Your task to perform on an android device: Search for the new Nintendo switch on Walmart. Image 0: 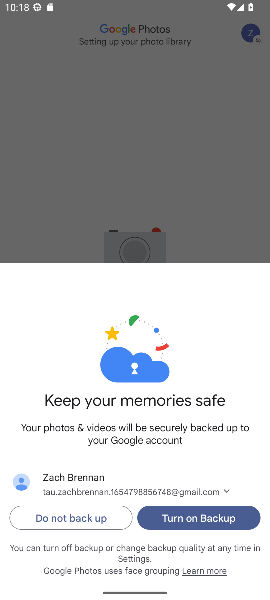
Step 0: press home button
Your task to perform on an android device: Search for the new Nintendo switch on Walmart. Image 1: 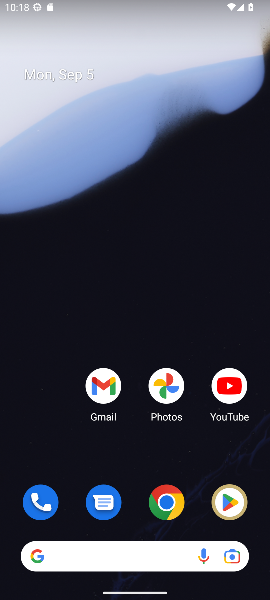
Step 1: click (264, 510)
Your task to perform on an android device: Search for the new Nintendo switch on Walmart. Image 2: 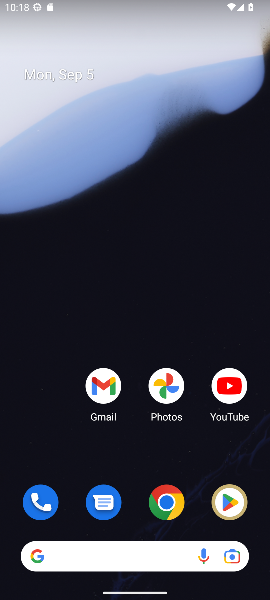
Step 2: drag from (260, 510) to (201, 34)
Your task to perform on an android device: Search for the new Nintendo switch on Walmart. Image 3: 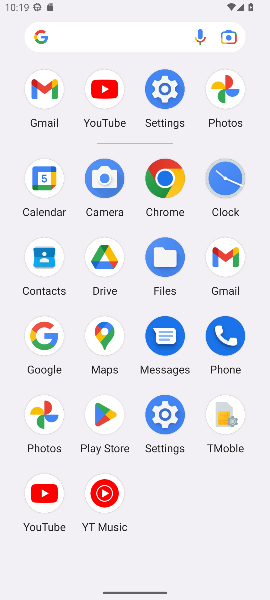
Step 3: click (46, 343)
Your task to perform on an android device: Search for the new Nintendo switch on Walmart. Image 4: 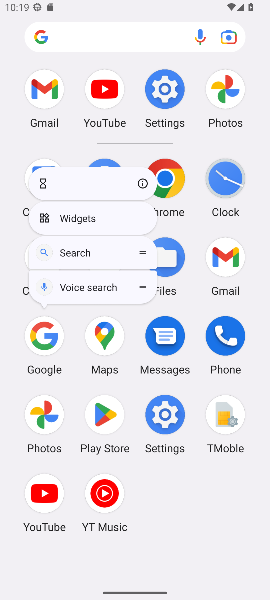
Step 4: click (46, 343)
Your task to perform on an android device: Search for the new Nintendo switch on Walmart. Image 5: 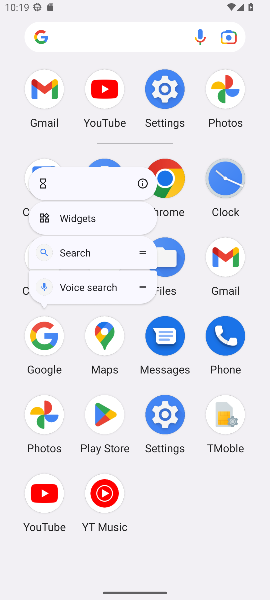
Step 5: click (46, 343)
Your task to perform on an android device: Search for the new Nintendo switch on Walmart. Image 6: 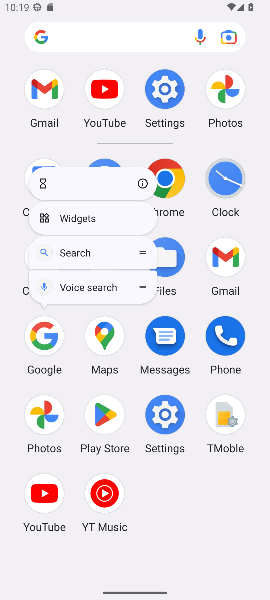
Step 6: click (46, 343)
Your task to perform on an android device: Search for the new Nintendo switch on Walmart. Image 7: 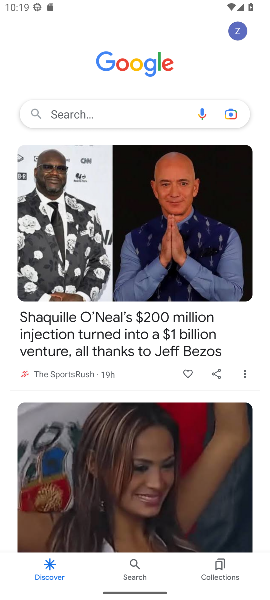
Step 7: click (89, 104)
Your task to perform on an android device: Search for the new Nintendo switch on Walmart. Image 8: 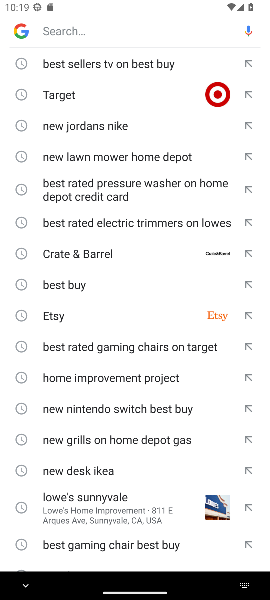
Step 8: type "new Nintendo switch on Walmart"
Your task to perform on an android device: Search for the new Nintendo switch on Walmart. Image 9: 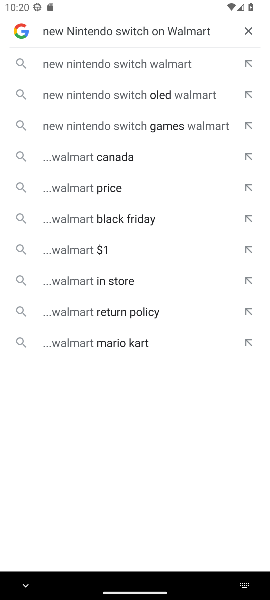
Step 9: click (164, 65)
Your task to perform on an android device: Search for the new Nintendo switch on Walmart. Image 10: 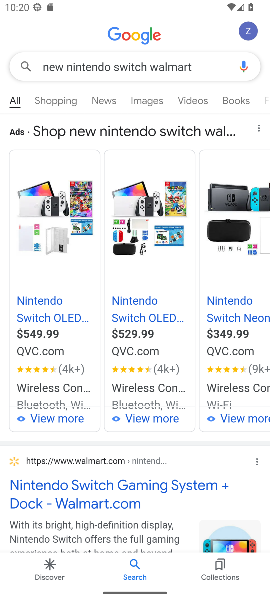
Step 10: task complete